Your task to perform on an android device: check out phone information Image 0: 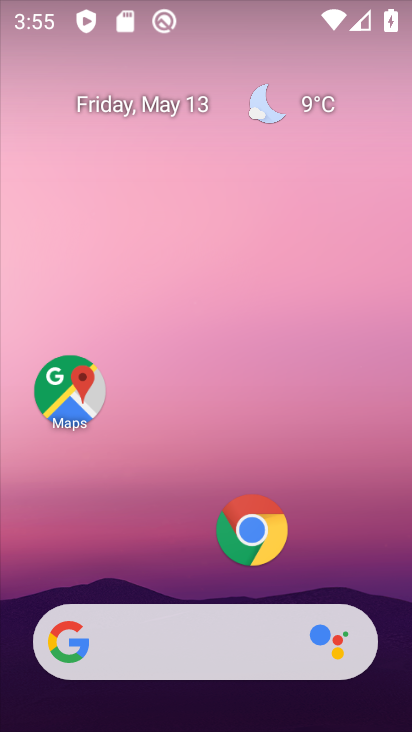
Step 0: drag from (189, 588) to (180, 54)
Your task to perform on an android device: check out phone information Image 1: 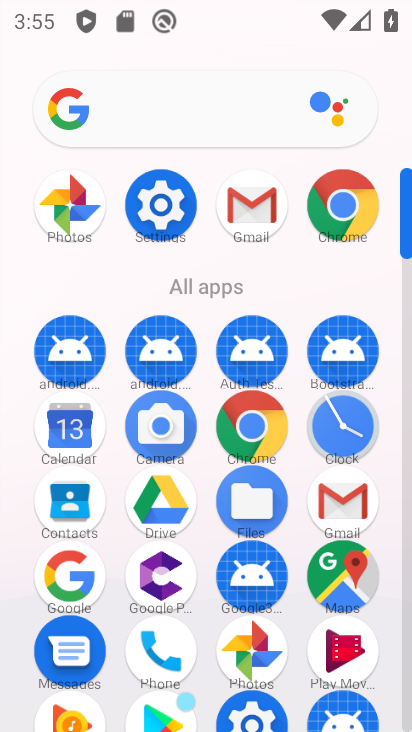
Step 1: click (158, 198)
Your task to perform on an android device: check out phone information Image 2: 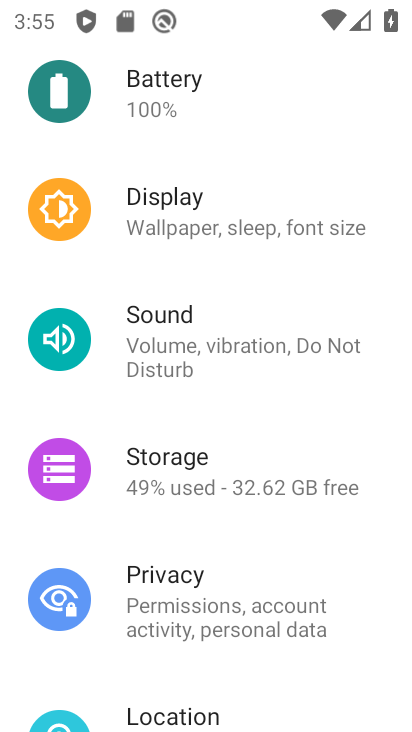
Step 2: drag from (230, 693) to (240, 63)
Your task to perform on an android device: check out phone information Image 3: 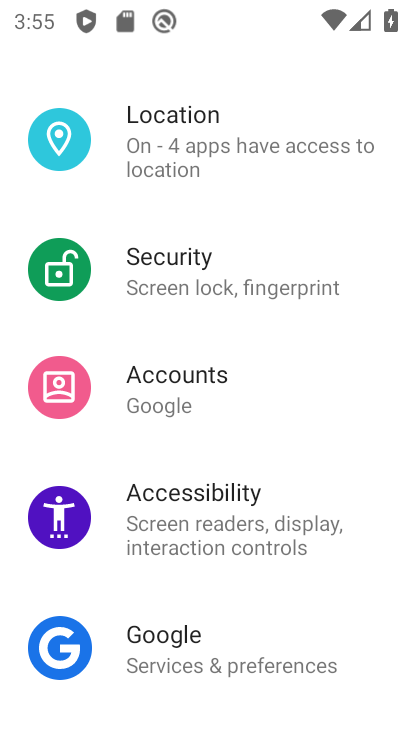
Step 3: drag from (203, 686) to (201, 69)
Your task to perform on an android device: check out phone information Image 4: 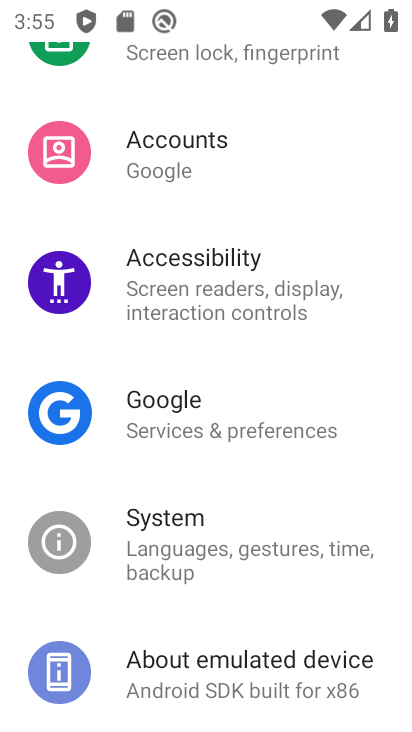
Step 4: click (113, 672)
Your task to perform on an android device: check out phone information Image 5: 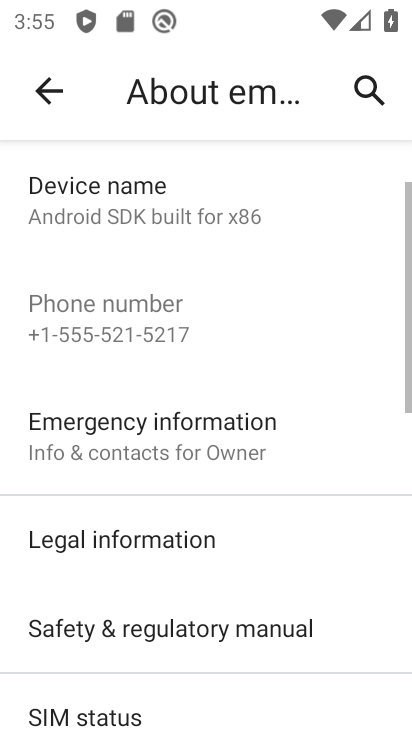
Step 5: task complete